Your task to perform on an android device: Check the price on the Dyson V11 Motorhead on Best Buy Image 0: 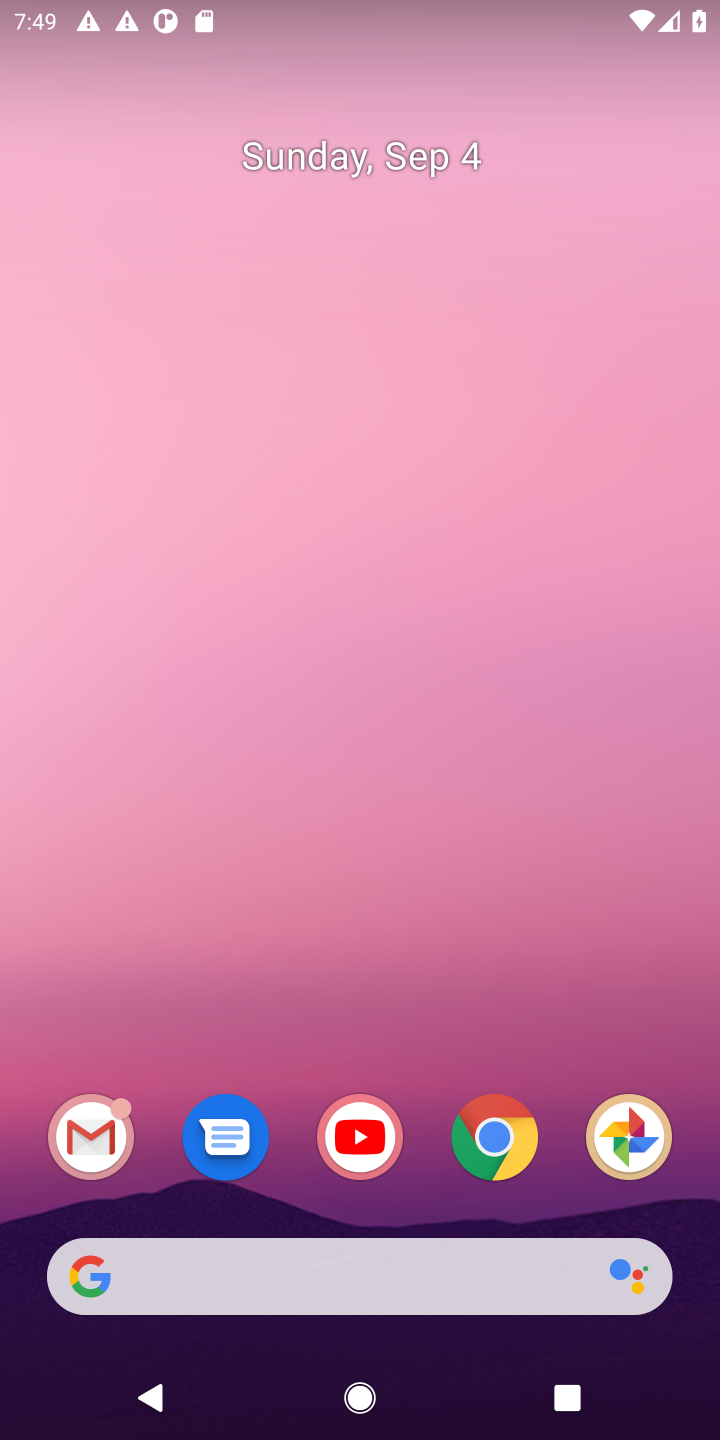
Step 0: click (493, 1138)
Your task to perform on an android device: Check the price on the Dyson V11 Motorhead on Best Buy Image 1: 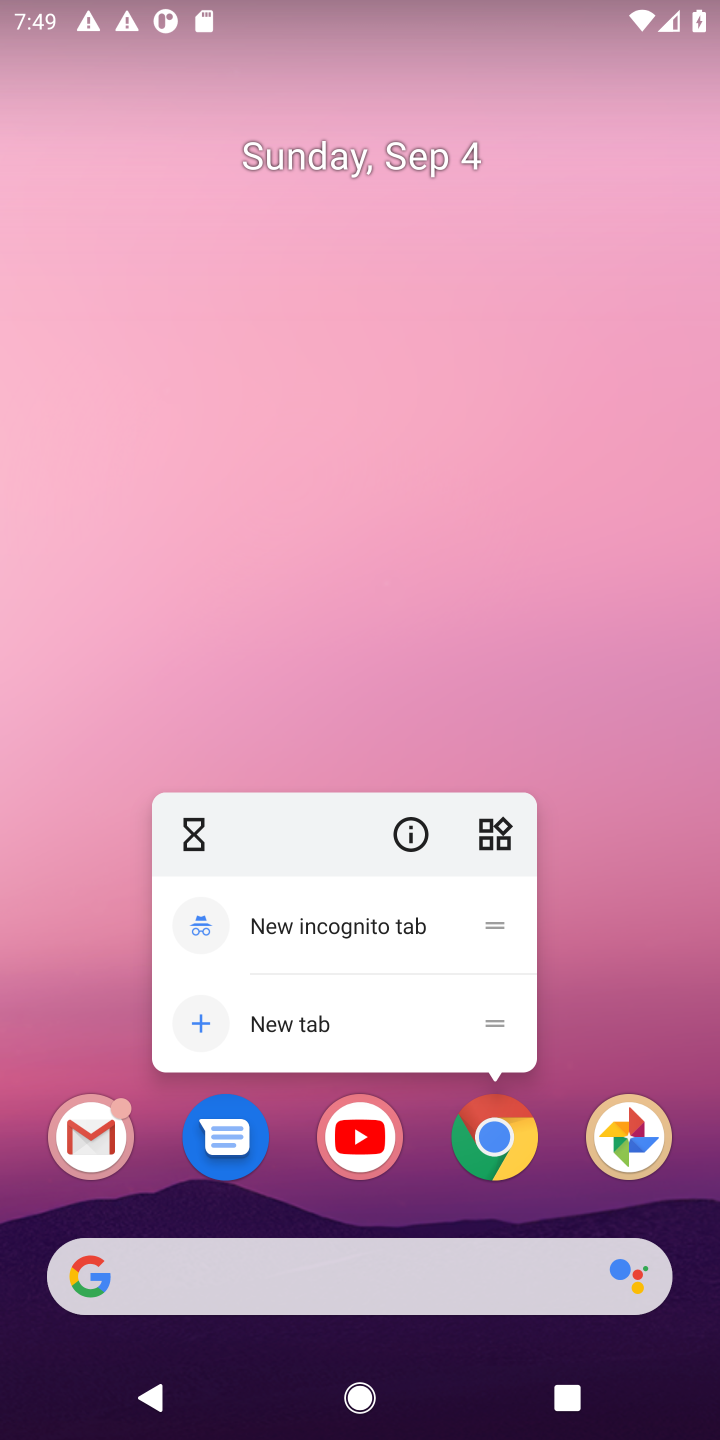
Step 1: click (493, 1138)
Your task to perform on an android device: Check the price on the Dyson V11 Motorhead on Best Buy Image 2: 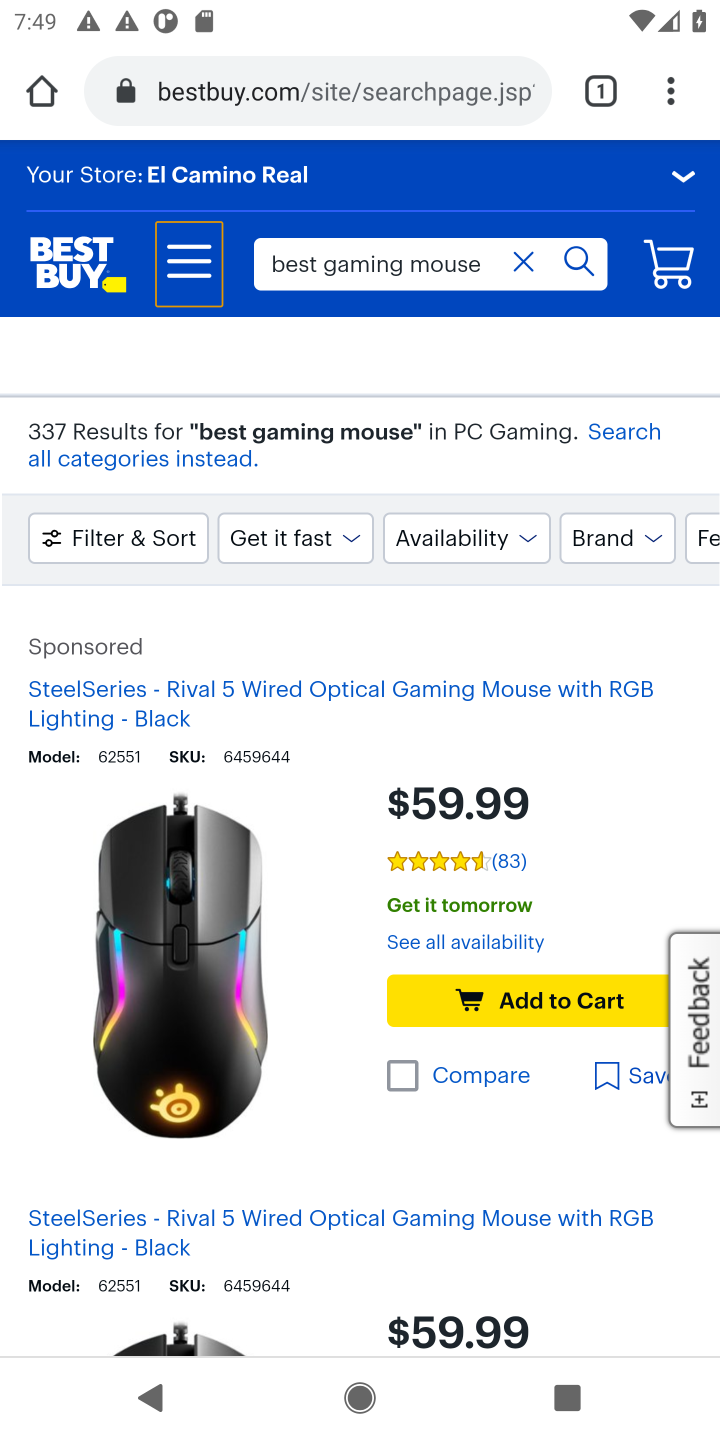
Step 2: click (478, 97)
Your task to perform on an android device: Check the price on the Dyson V11 Motorhead on Best Buy Image 3: 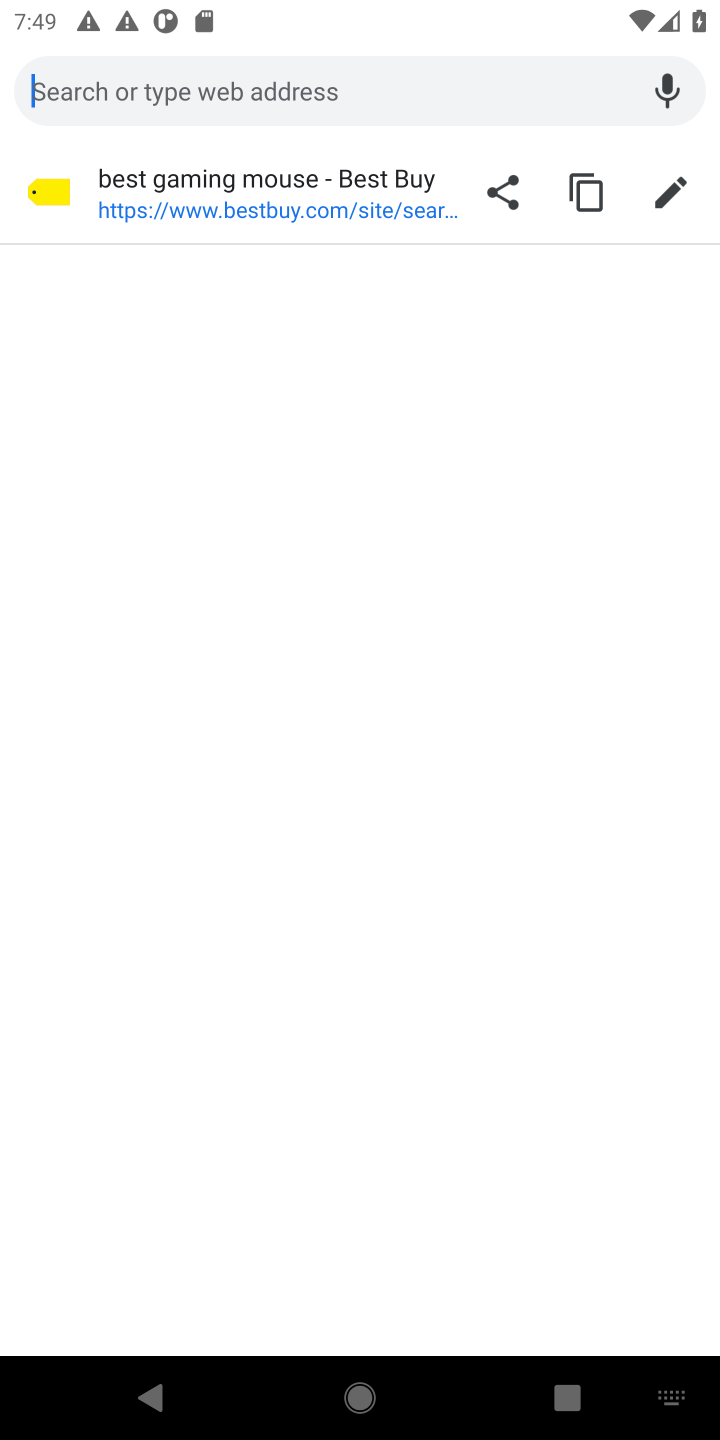
Step 3: type "Best buy"
Your task to perform on an android device: Check the price on the Dyson V11 Motorhead on Best Buy Image 4: 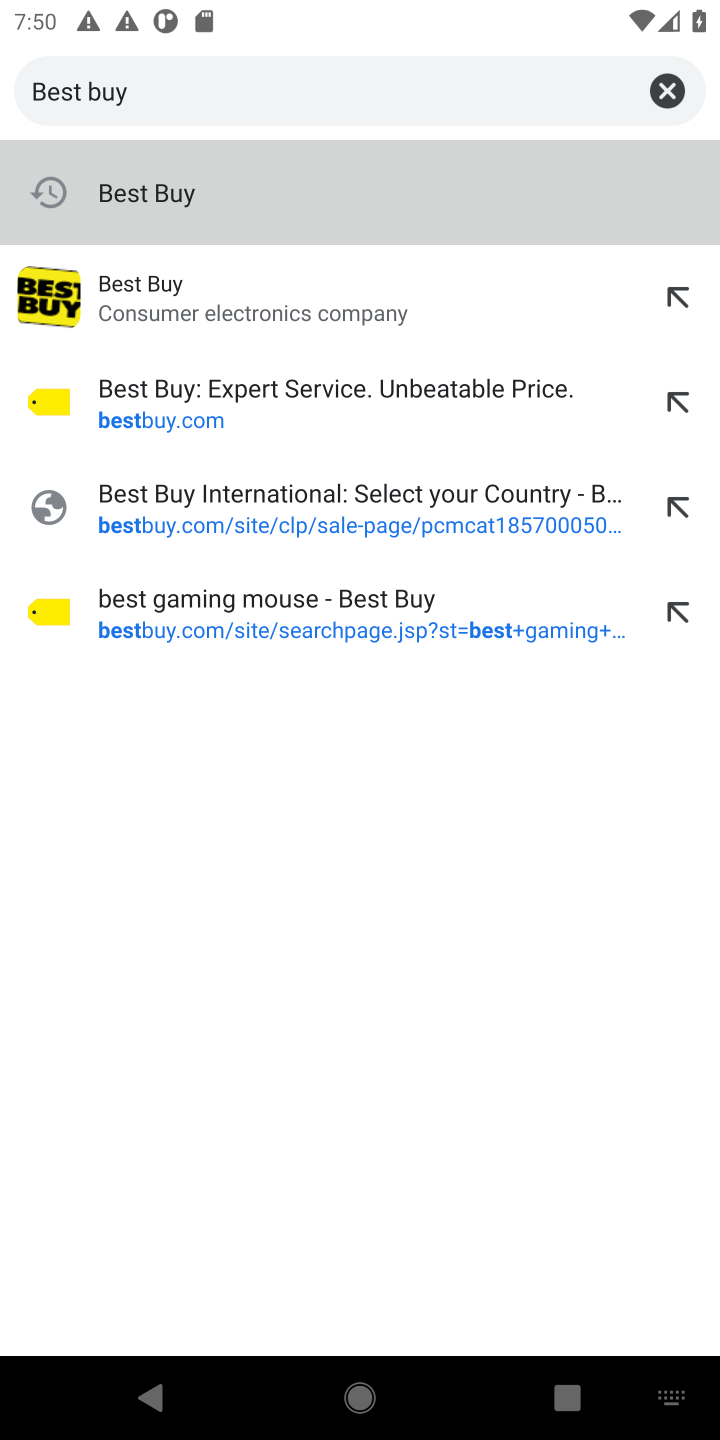
Step 4: click (221, 205)
Your task to perform on an android device: Check the price on the Dyson V11 Motorhead on Best Buy Image 5: 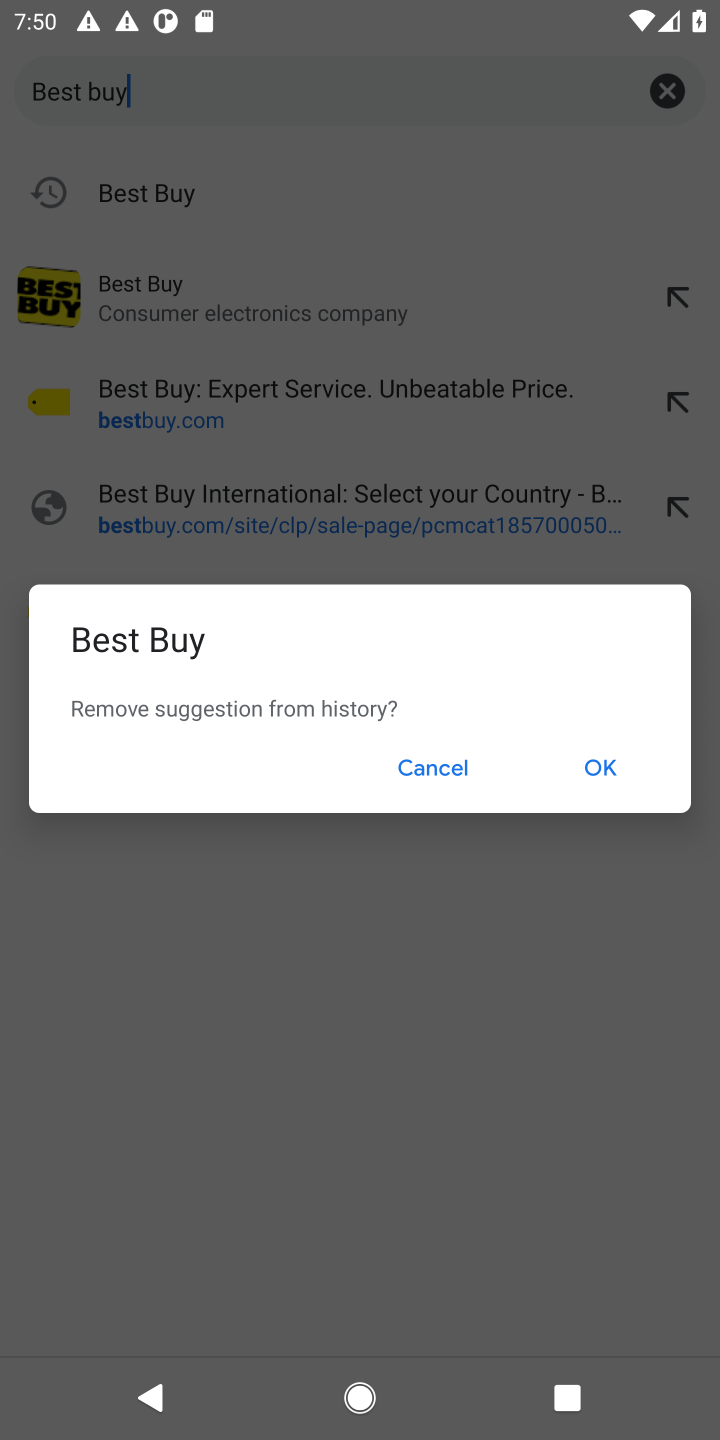
Step 5: click (319, 854)
Your task to perform on an android device: Check the price on the Dyson V11 Motorhead on Best Buy Image 6: 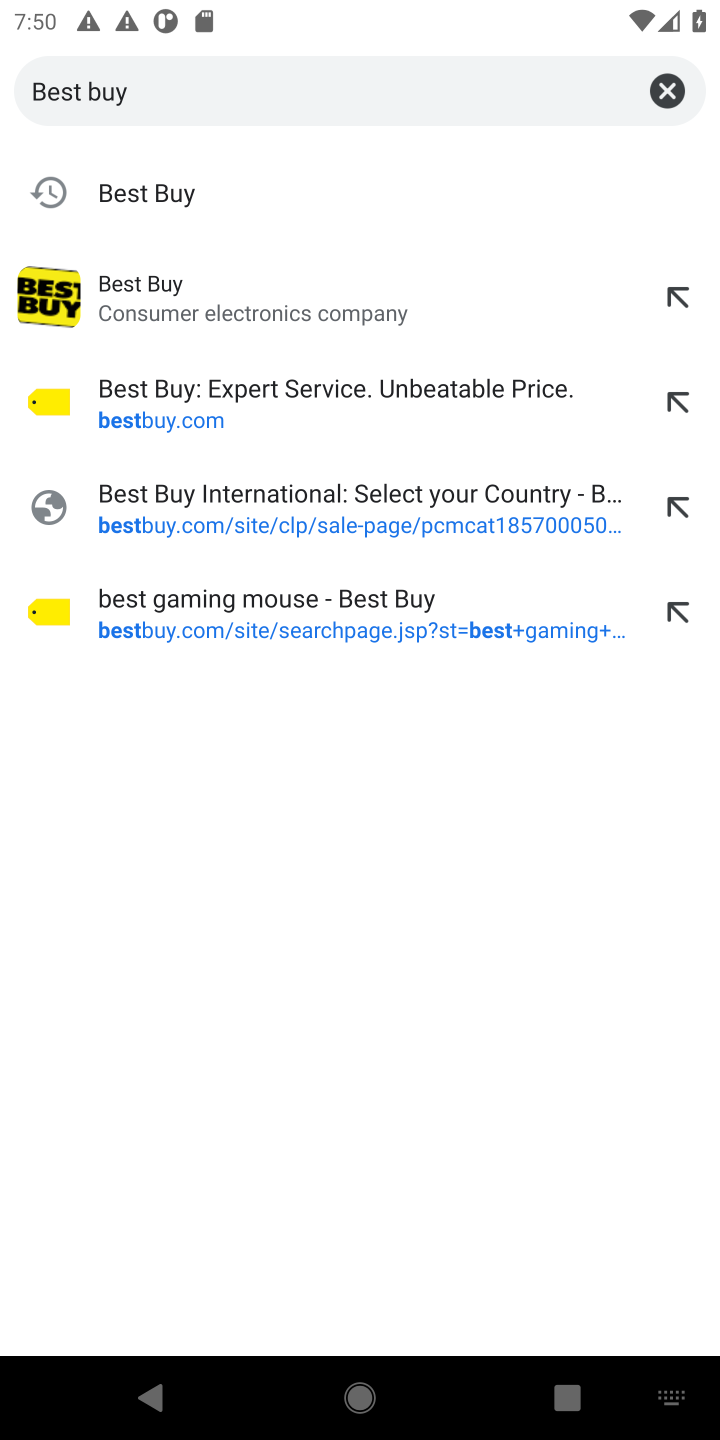
Step 6: click (138, 191)
Your task to perform on an android device: Check the price on the Dyson V11 Motorhead on Best Buy Image 7: 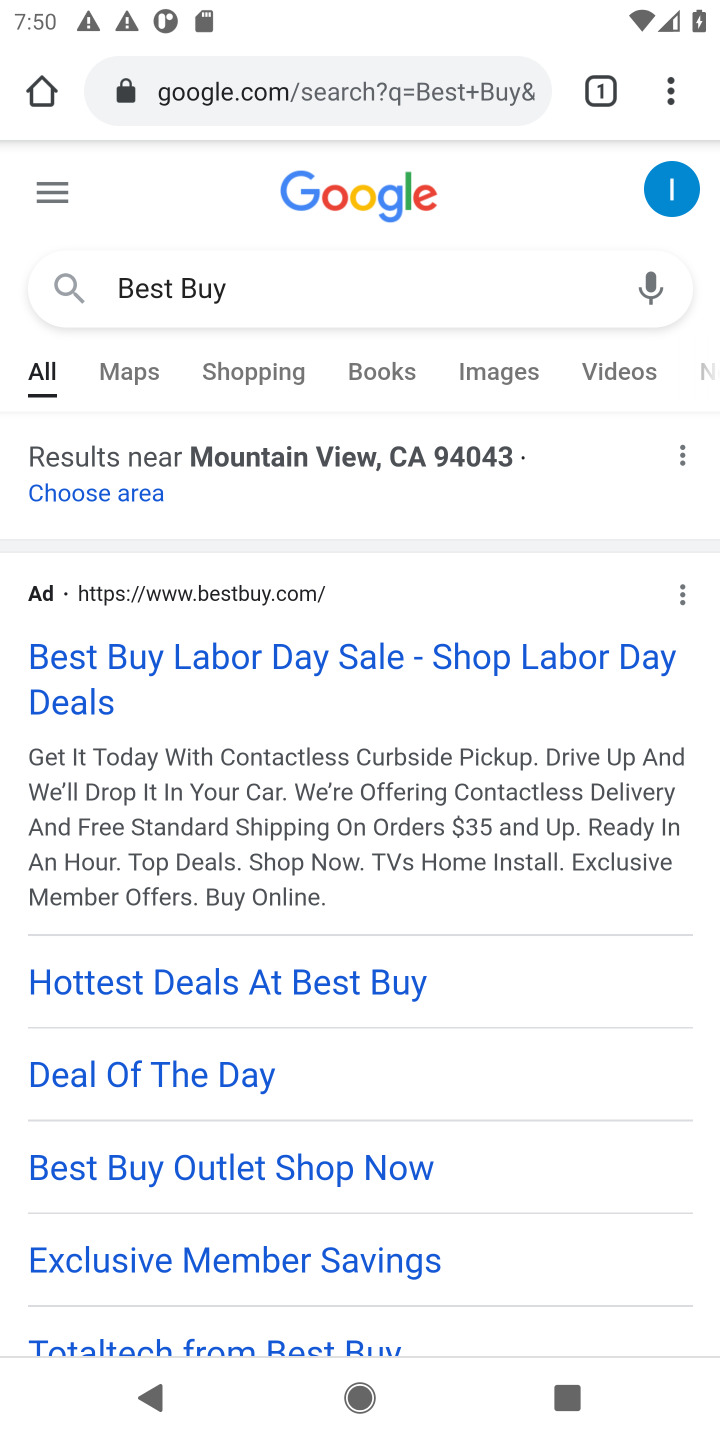
Step 7: drag from (369, 1094) to (575, 748)
Your task to perform on an android device: Check the price on the Dyson V11 Motorhead on Best Buy Image 8: 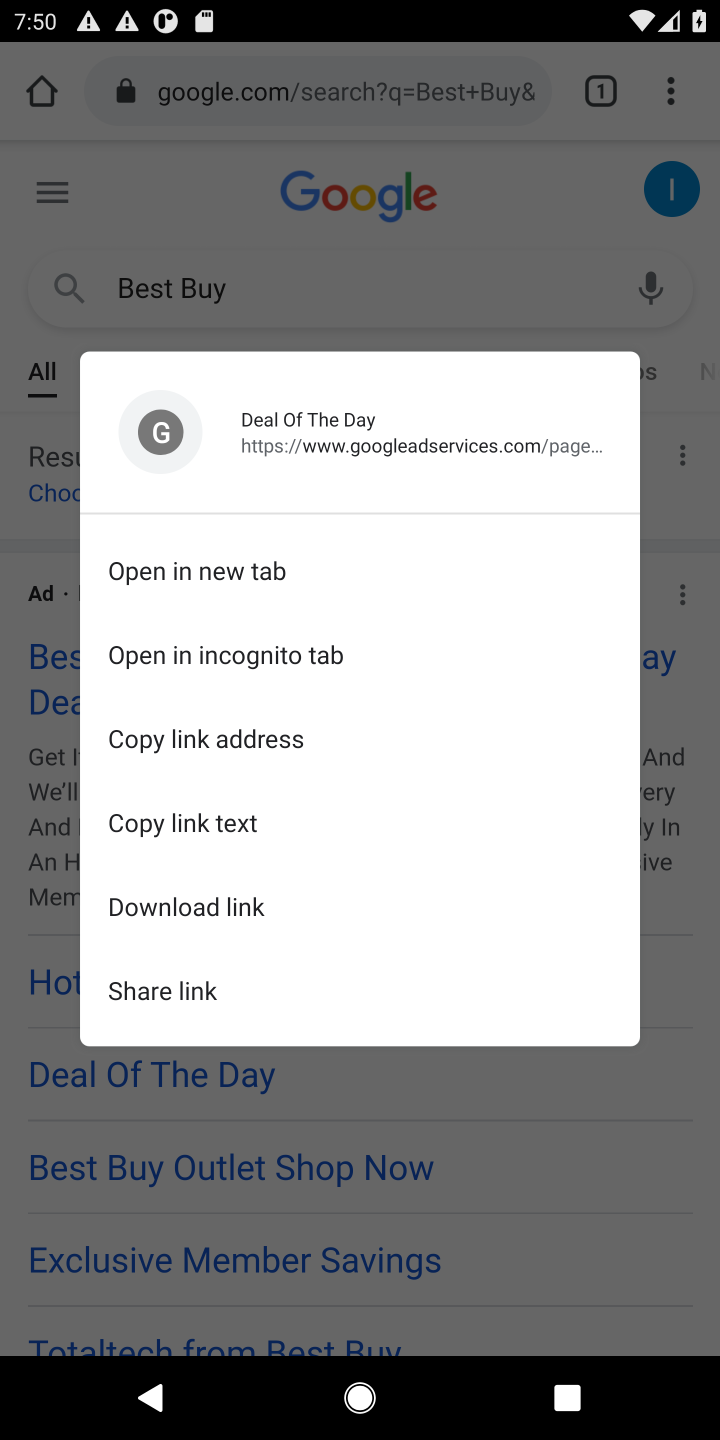
Step 8: click (537, 1192)
Your task to perform on an android device: Check the price on the Dyson V11 Motorhead on Best Buy Image 9: 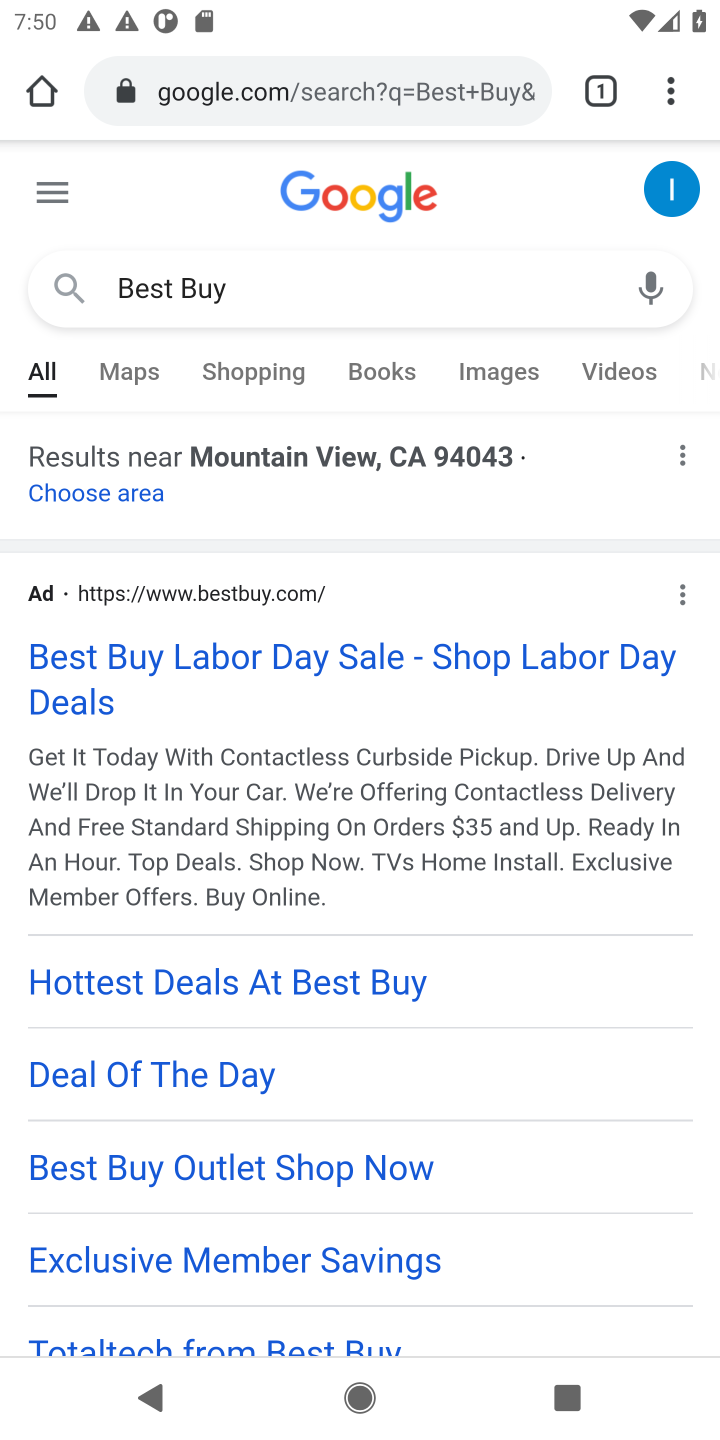
Step 9: drag from (492, 1259) to (550, 774)
Your task to perform on an android device: Check the price on the Dyson V11 Motorhead on Best Buy Image 10: 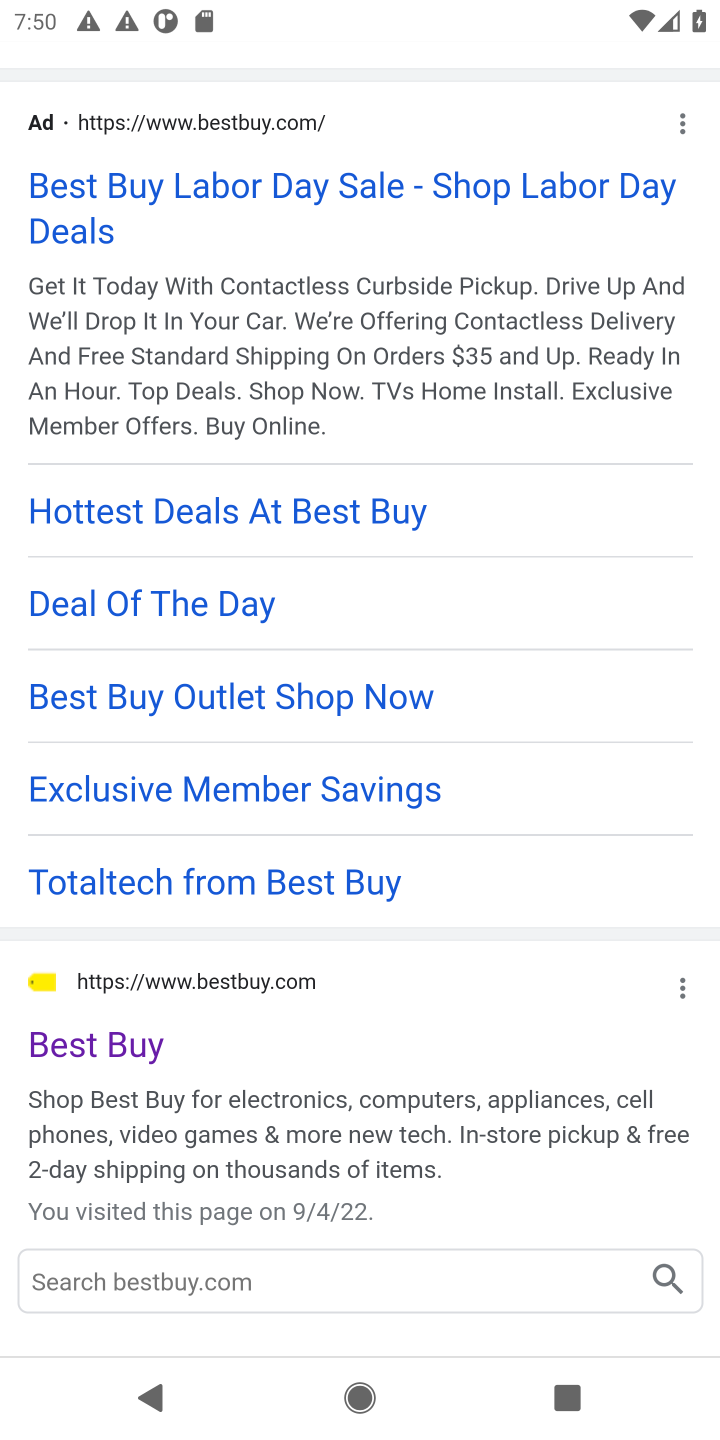
Step 10: click (94, 1045)
Your task to perform on an android device: Check the price on the Dyson V11 Motorhead on Best Buy Image 11: 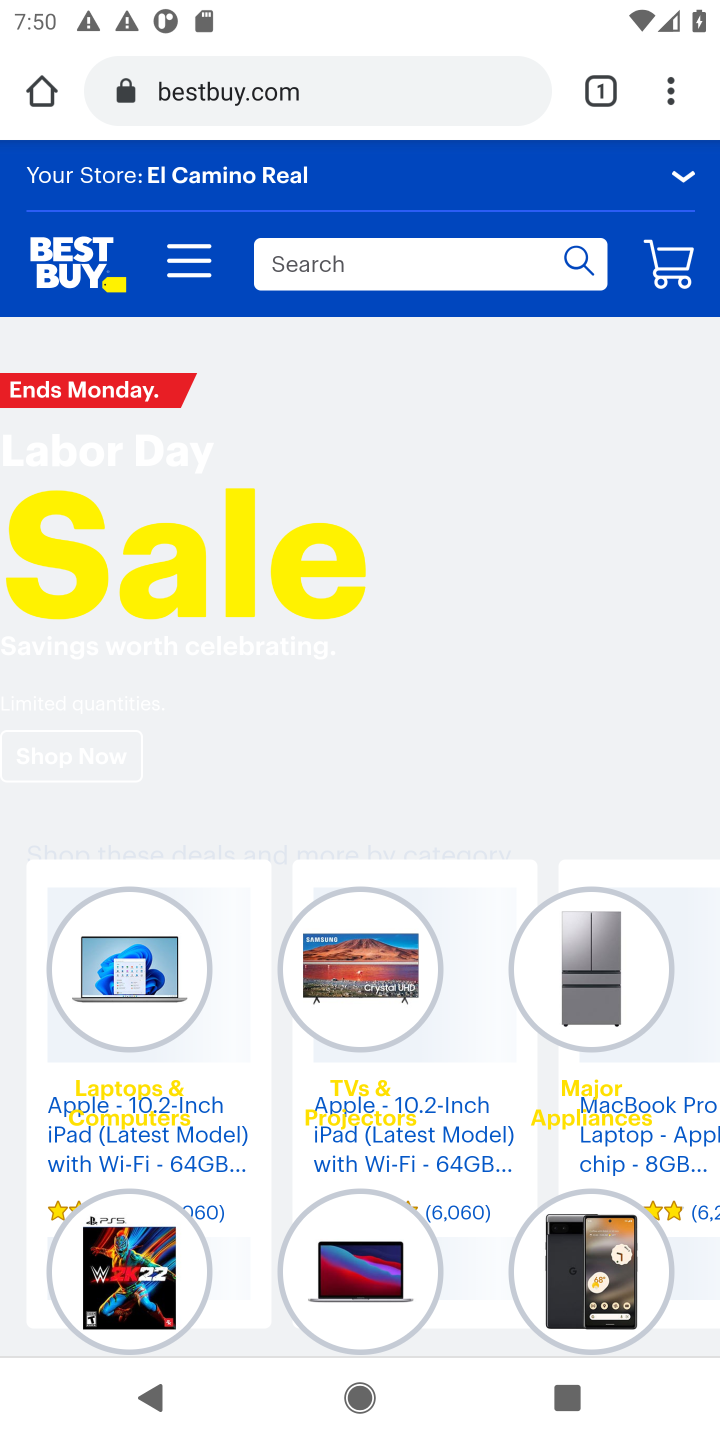
Step 11: click (367, 252)
Your task to perform on an android device: Check the price on the Dyson V11 Motorhead on Best Buy Image 12: 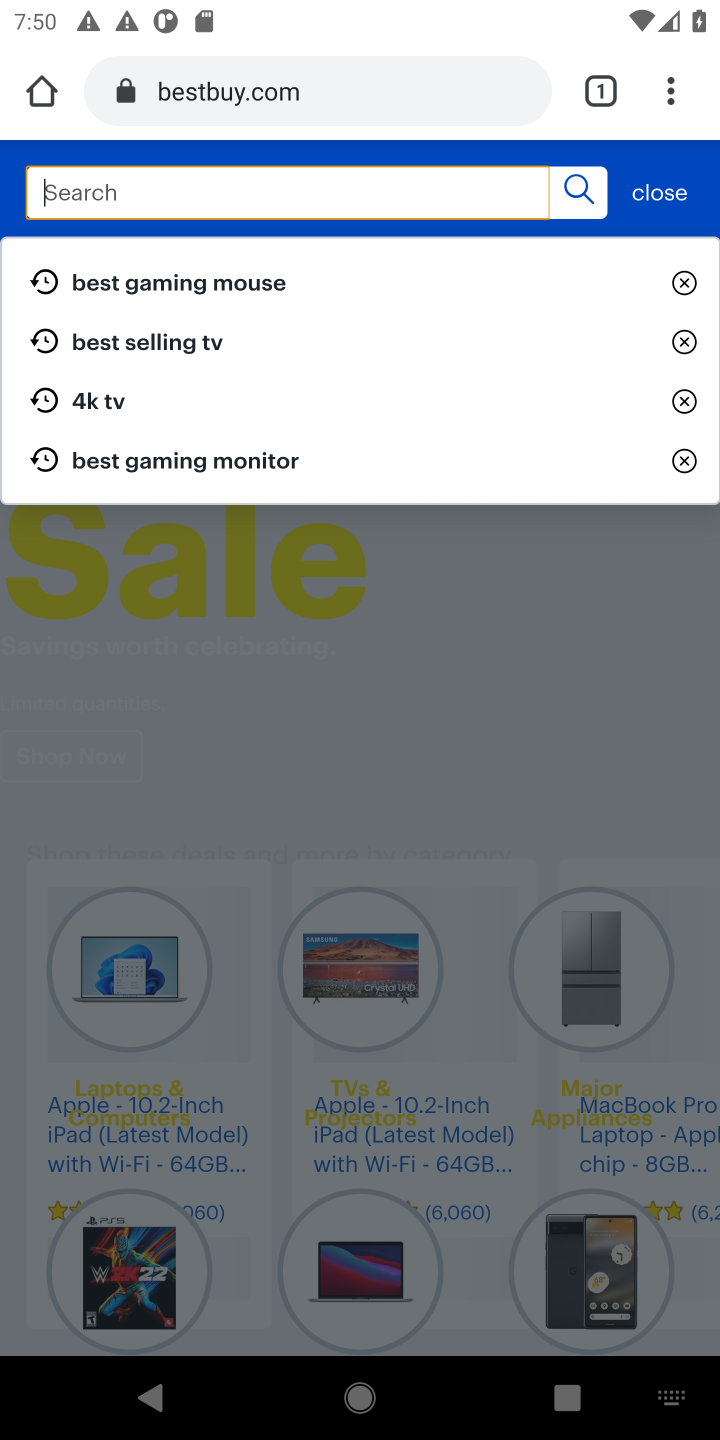
Step 12: type " price on the Dyson V11 Motorhead"
Your task to perform on an android device: Check the price on the Dyson V11 Motorhead on Best Buy Image 13: 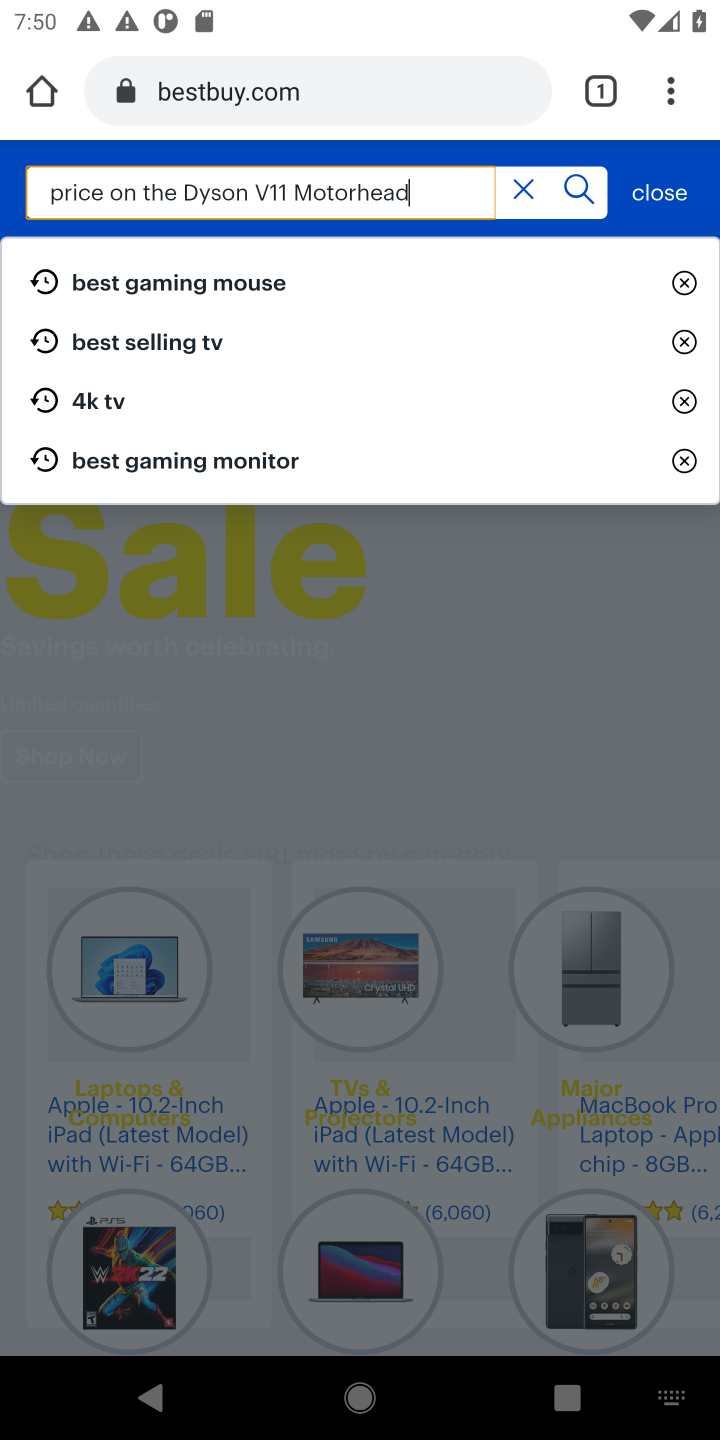
Step 13: type ""
Your task to perform on an android device: Check the price on the Dyson V11 Motorhead on Best Buy Image 14: 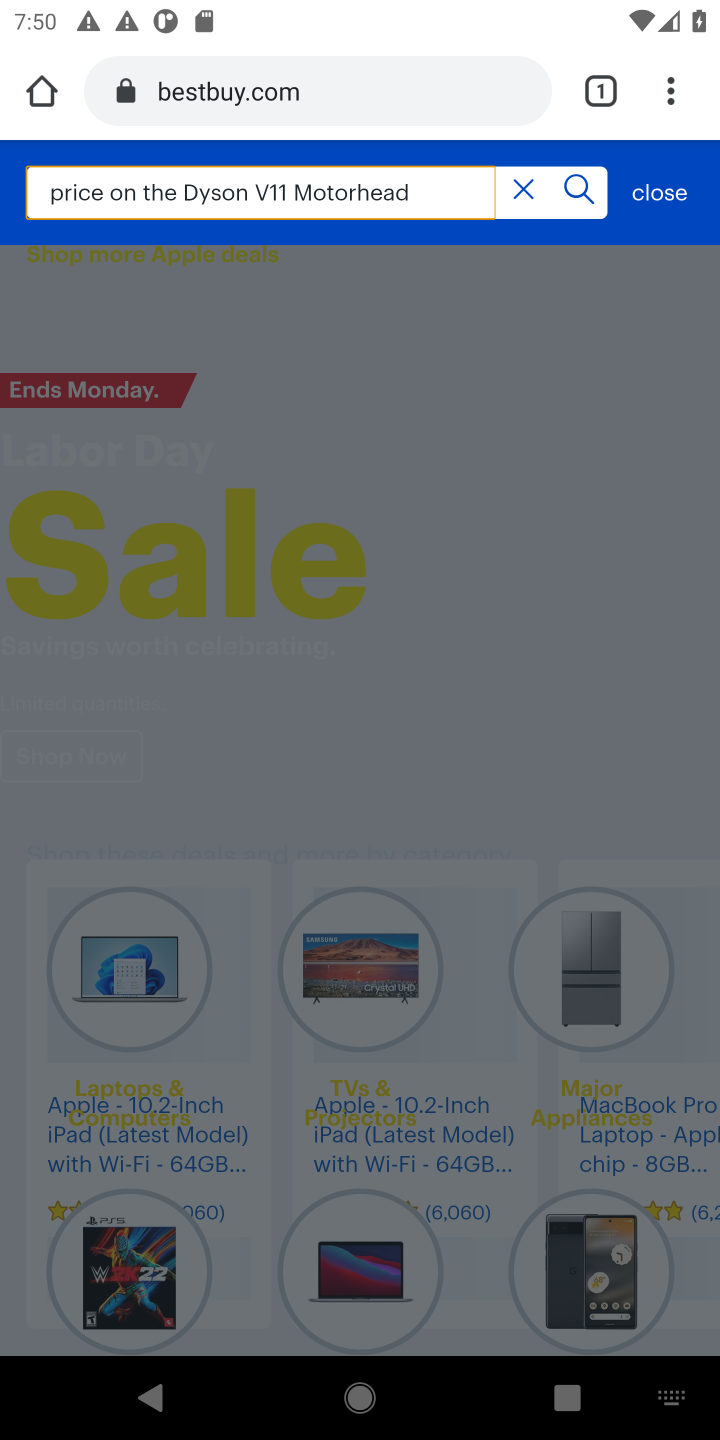
Step 14: click (579, 184)
Your task to perform on an android device: Check the price on the Dyson V11 Motorhead on Best Buy Image 15: 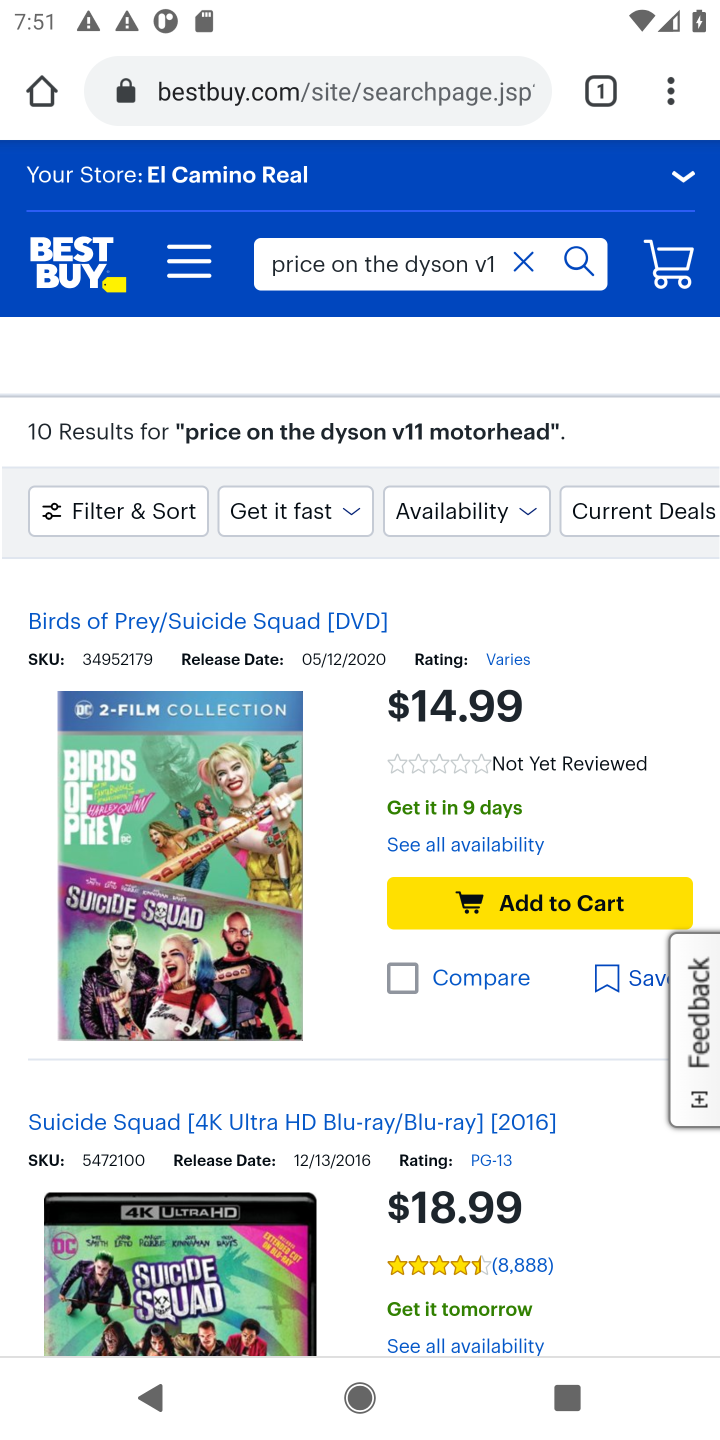
Step 15: task complete